Your task to perform on an android device: What's the weather going to be tomorrow? Image 0: 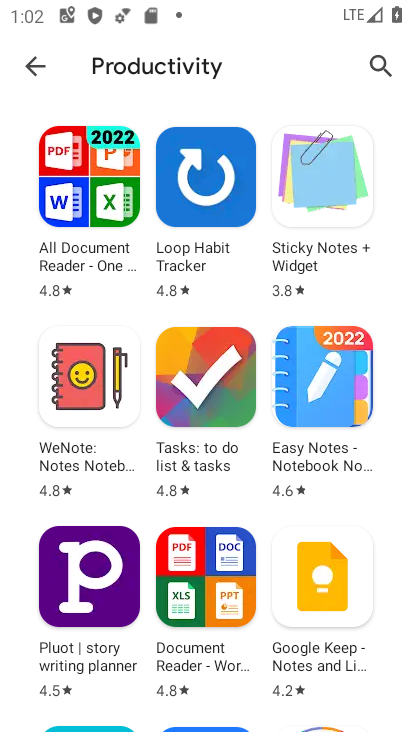
Step 0: press home button
Your task to perform on an android device: What's the weather going to be tomorrow? Image 1: 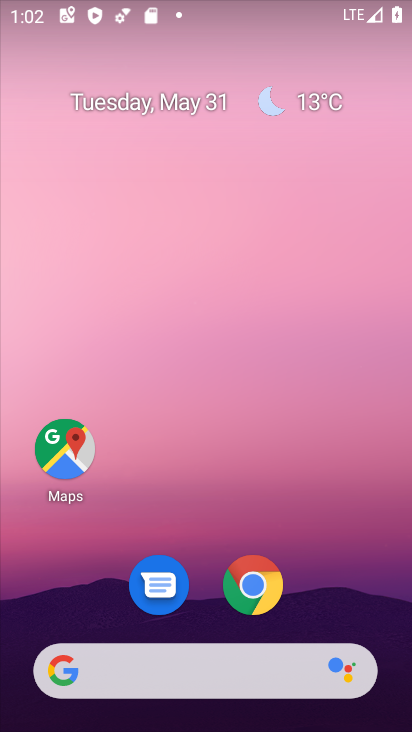
Step 1: click (211, 675)
Your task to perform on an android device: What's the weather going to be tomorrow? Image 2: 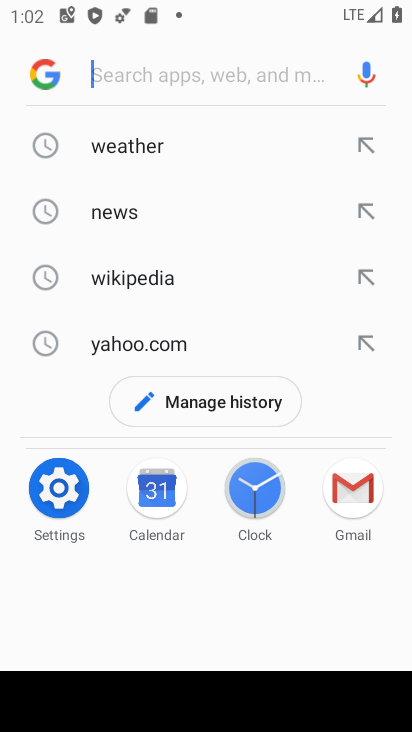
Step 2: click (140, 149)
Your task to perform on an android device: What's the weather going to be tomorrow? Image 3: 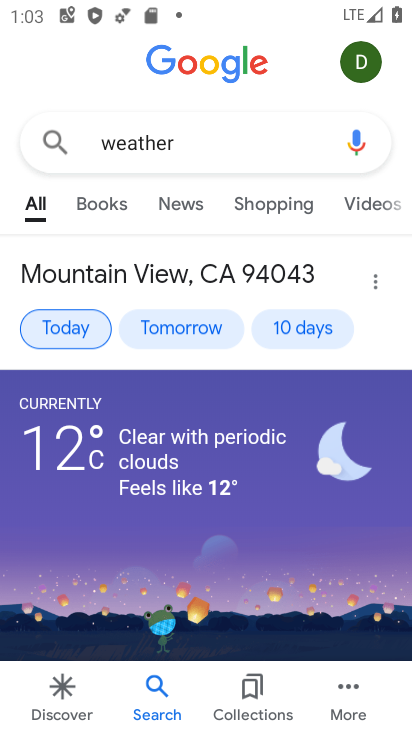
Step 3: click (71, 325)
Your task to perform on an android device: What's the weather going to be tomorrow? Image 4: 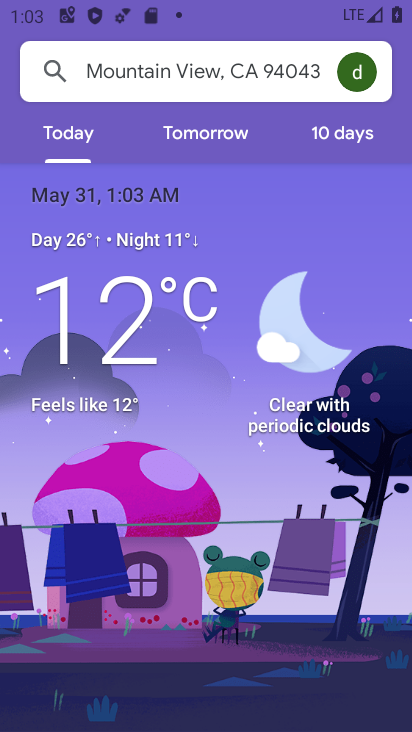
Step 4: click (222, 127)
Your task to perform on an android device: What's the weather going to be tomorrow? Image 5: 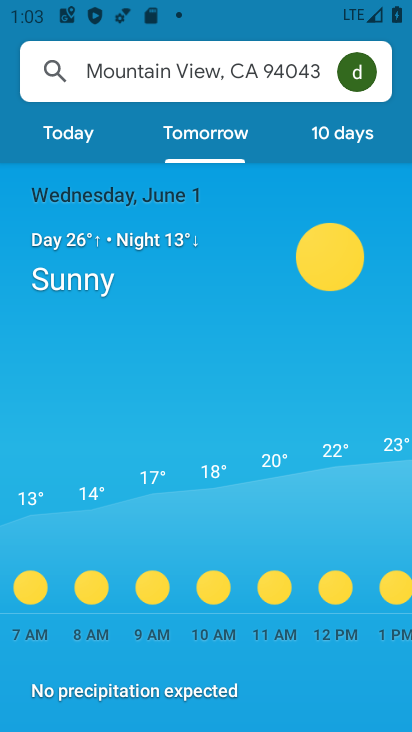
Step 5: task complete